Your task to perform on an android device: set the stopwatch Image 0: 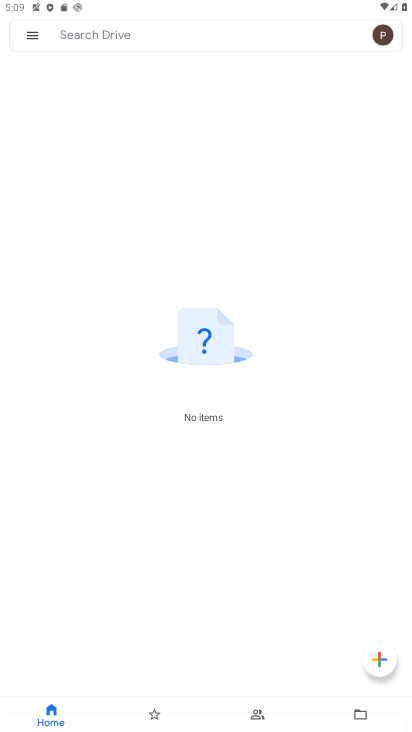
Step 0: press home button
Your task to perform on an android device: set the stopwatch Image 1: 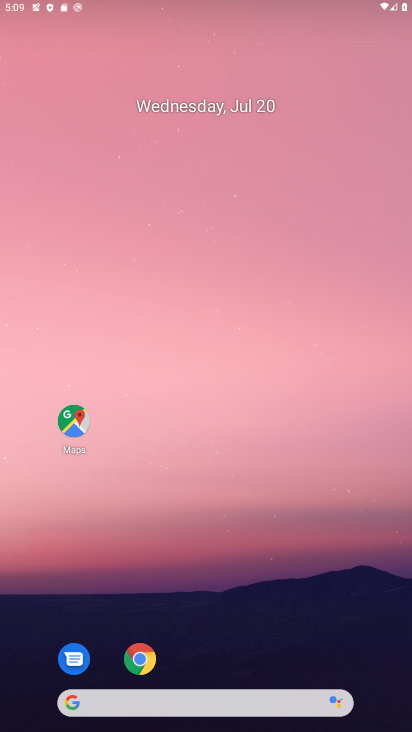
Step 1: drag from (248, 680) to (248, 238)
Your task to perform on an android device: set the stopwatch Image 2: 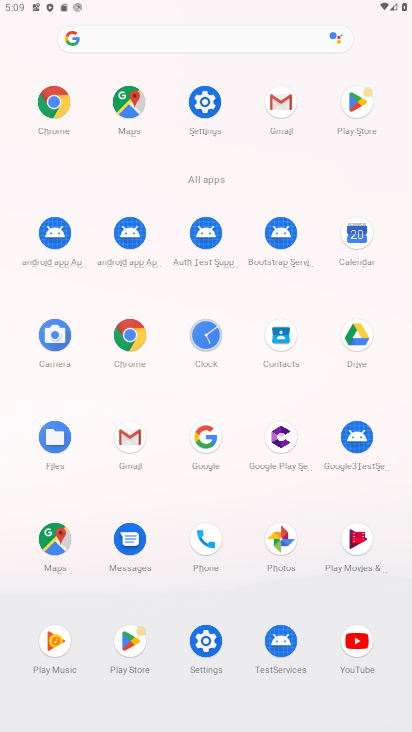
Step 2: click (200, 342)
Your task to perform on an android device: set the stopwatch Image 3: 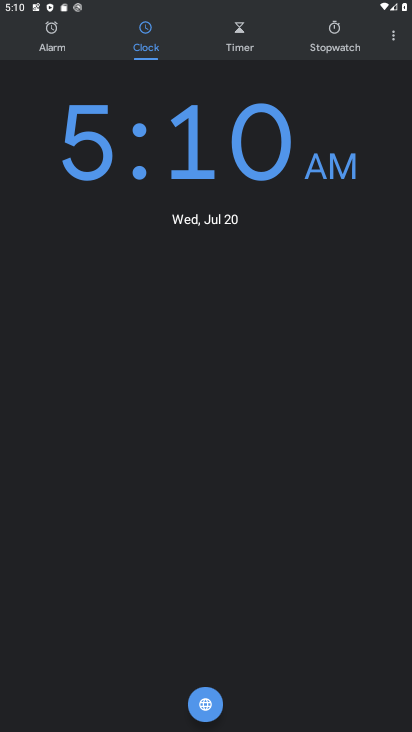
Step 3: click (327, 35)
Your task to perform on an android device: set the stopwatch Image 4: 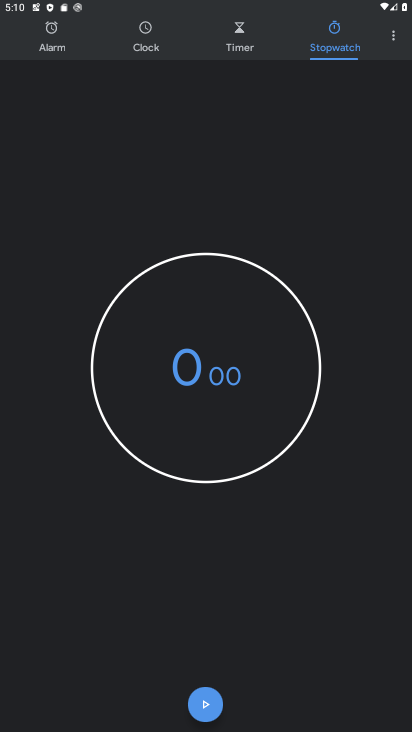
Step 4: click (208, 708)
Your task to perform on an android device: set the stopwatch Image 5: 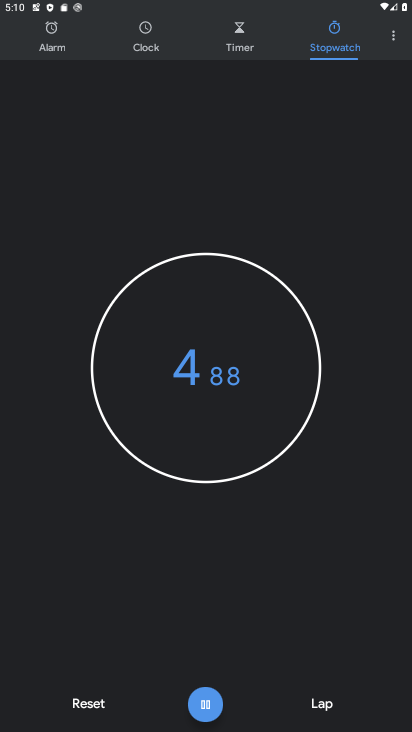
Step 5: click (199, 705)
Your task to perform on an android device: set the stopwatch Image 6: 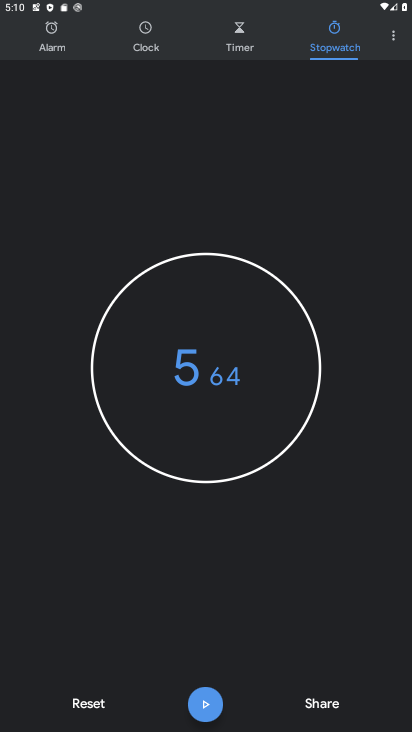
Step 6: task complete